Your task to perform on an android device: toggle pop-ups in chrome Image 0: 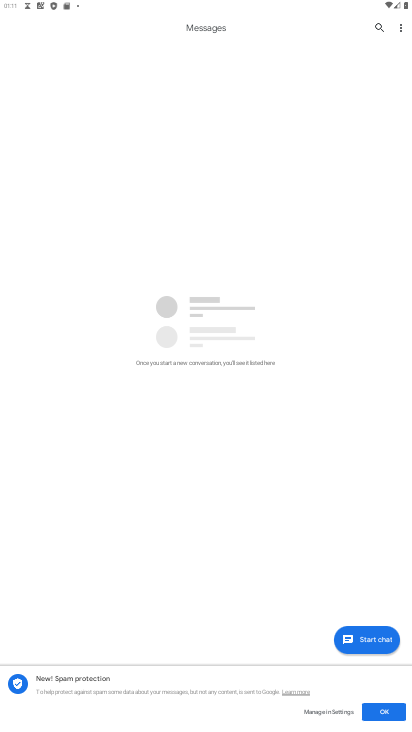
Step 0: press home button
Your task to perform on an android device: toggle pop-ups in chrome Image 1: 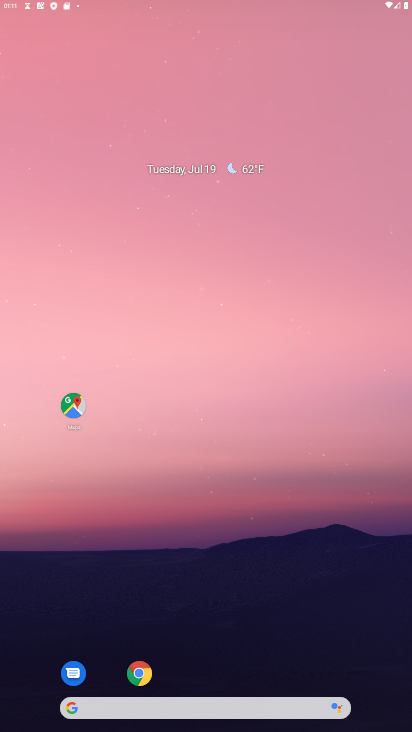
Step 1: drag from (233, 642) to (215, 453)
Your task to perform on an android device: toggle pop-ups in chrome Image 2: 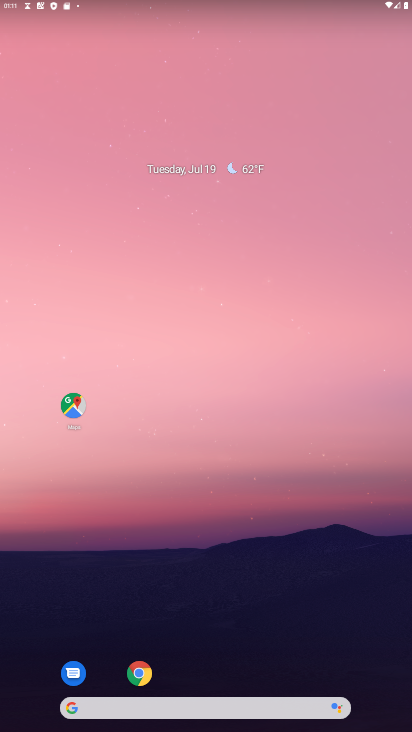
Step 2: drag from (246, 619) to (245, 154)
Your task to perform on an android device: toggle pop-ups in chrome Image 3: 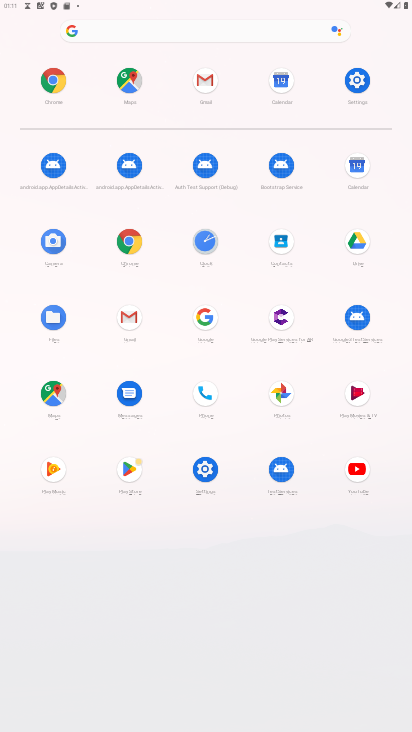
Step 3: click (146, 239)
Your task to perform on an android device: toggle pop-ups in chrome Image 4: 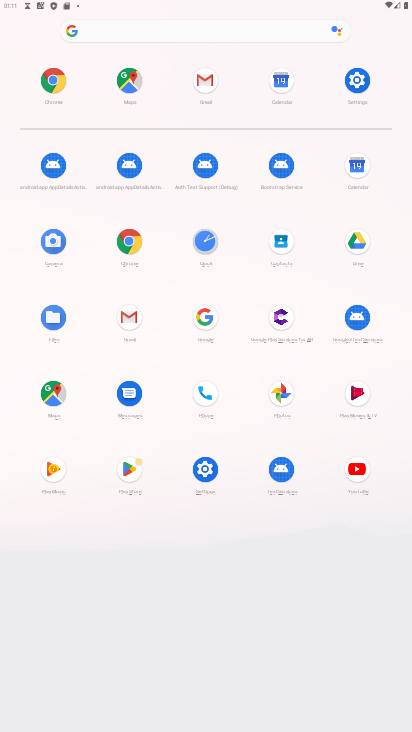
Step 4: click (141, 238)
Your task to perform on an android device: toggle pop-ups in chrome Image 5: 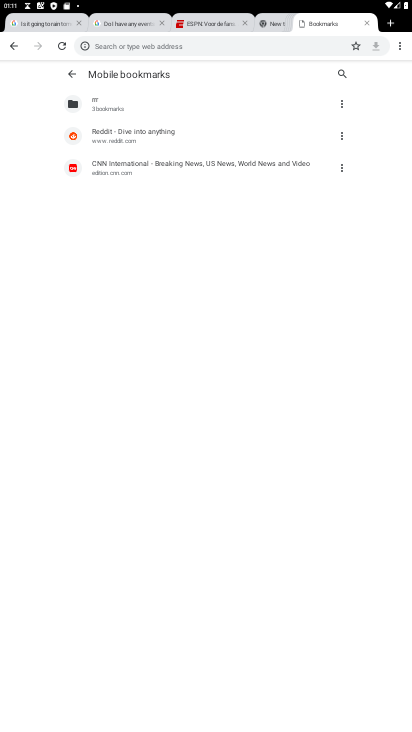
Step 5: click (405, 49)
Your task to perform on an android device: toggle pop-ups in chrome Image 6: 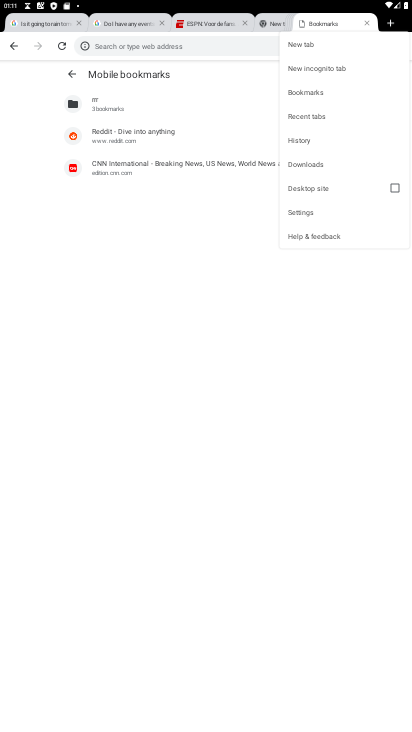
Step 6: click (316, 207)
Your task to perform on an android device: toggle pop-ups in chrome Image 7: 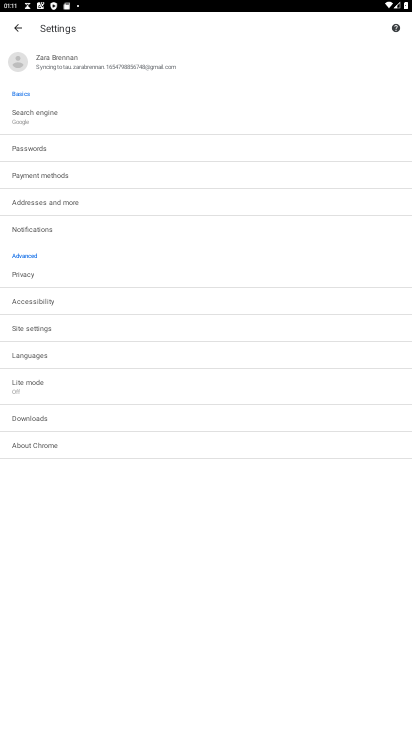
Step 7: click (59, 328)
Your task to perform on an android device: toggle pop-ups in chrome Image 8: 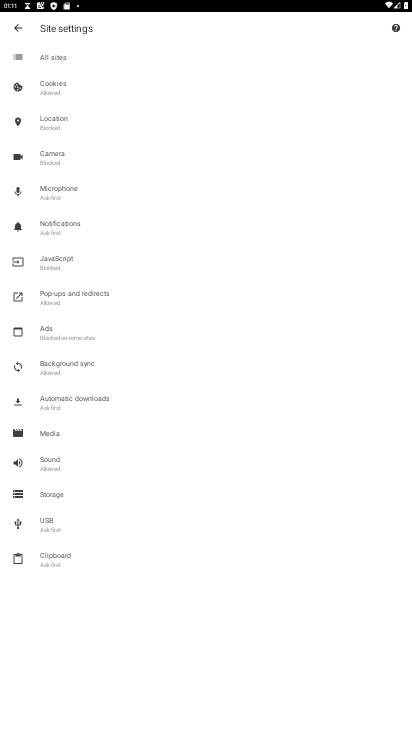
Step 8: click (75, 310)
Your task to perform on an android device: toggle pop-ups in chrome Image 9: 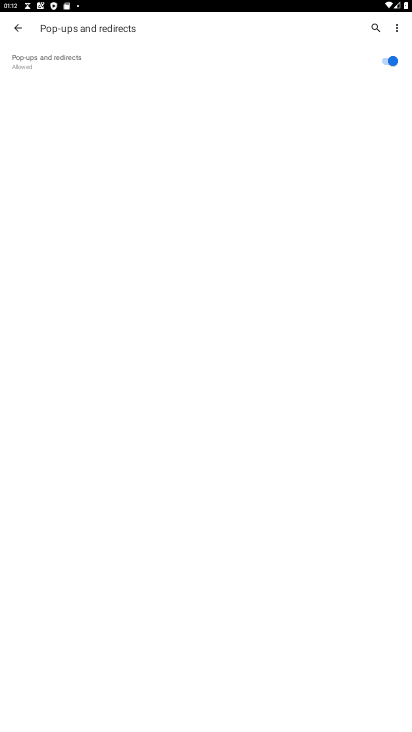
Step 9: click (384, 54)
Your task to perform on an android device: toggle pop-ups in chrome Image 10: 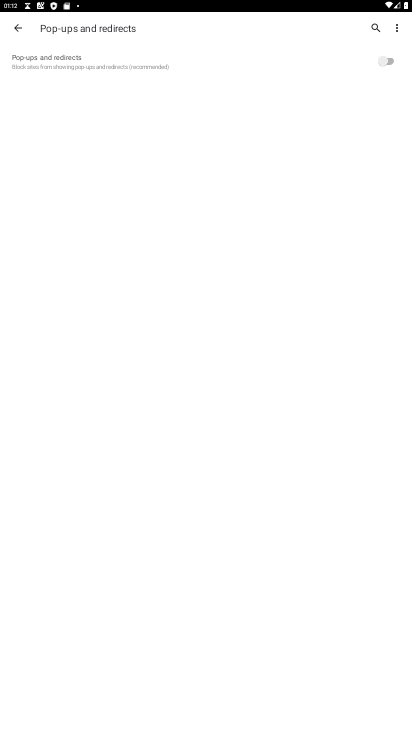
Step 10: task complete